Your task to perform on an android device: turn off sleep mode Image 0: 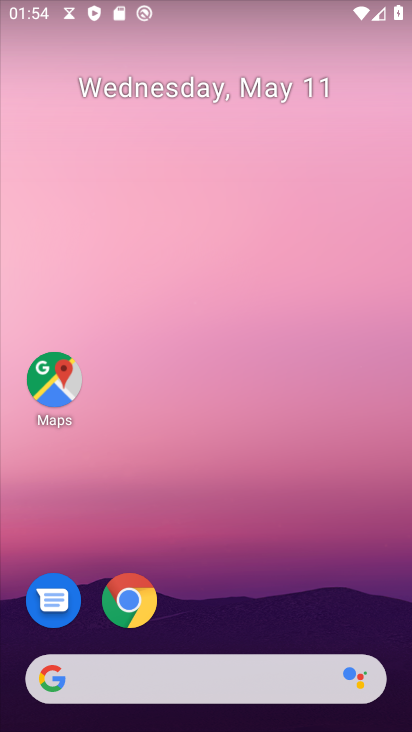
Step 0: drag from (227, 632) to (278, 230)
Your task to perform on an android device: turn off sleep mode Image 1: 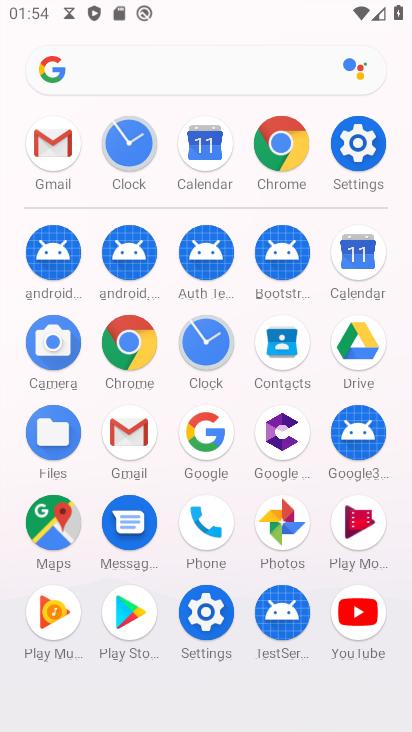
Step 1: click (350, 134)
Your task to perform on an android device: turn off sleep mode Image 2: 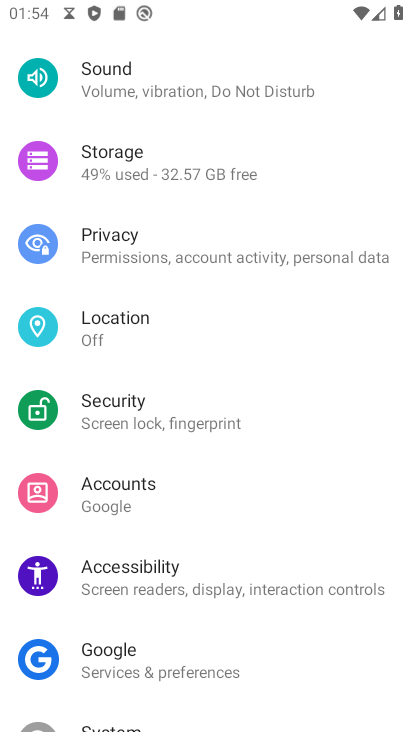
Step 2: task complete